Your task to perform on an android device: What is the news today? Image 0: 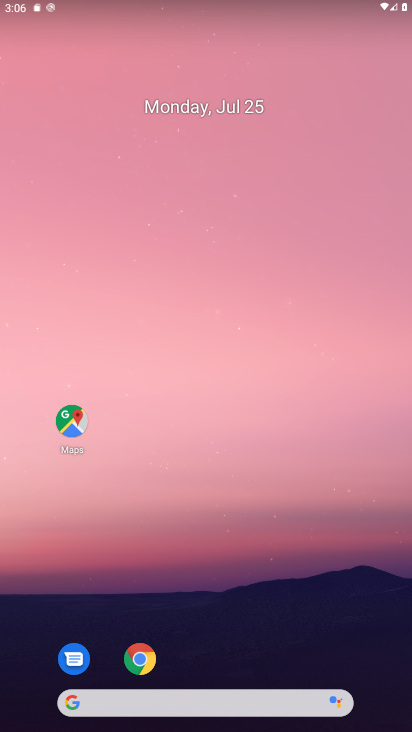
Step 0: click (236, 95)
Your task to perform on an android device: What is the news today? Image 1: 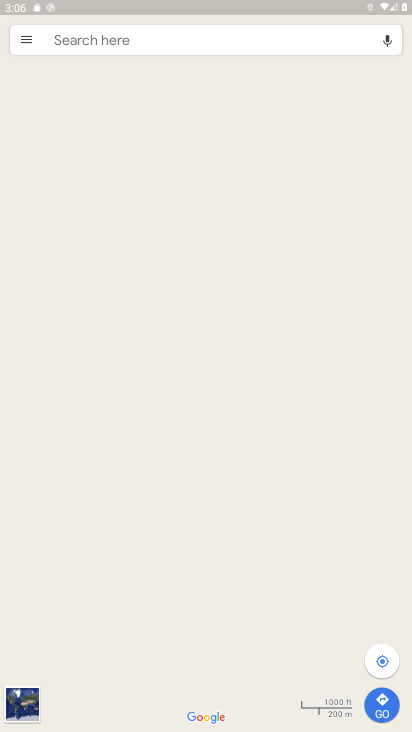
Step 1: press home button
Your task to perform on an android device: What is the news today? Image 2: 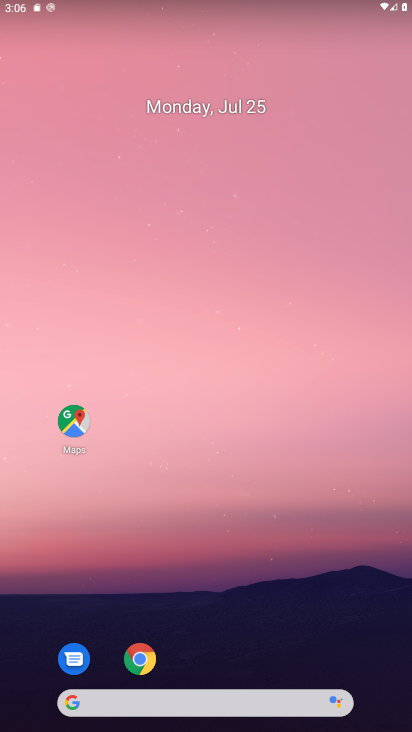
Step 2: click (153, 694)
Your task to perform on an android device: What is the news today? Image 3: 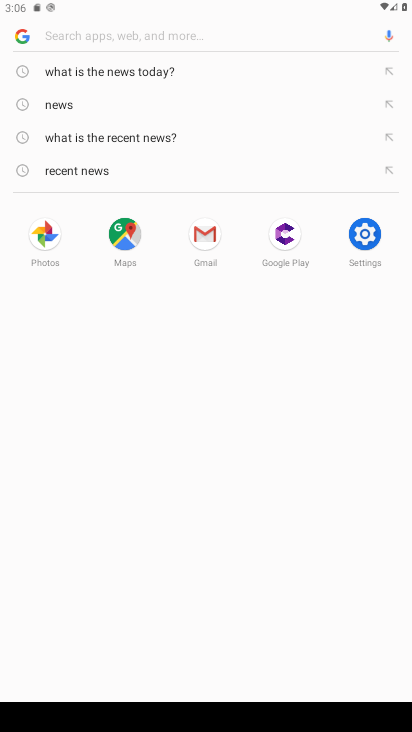
Step 3: click (146, 69)
Your task to perform on an android device: What is the news today? Image 4: 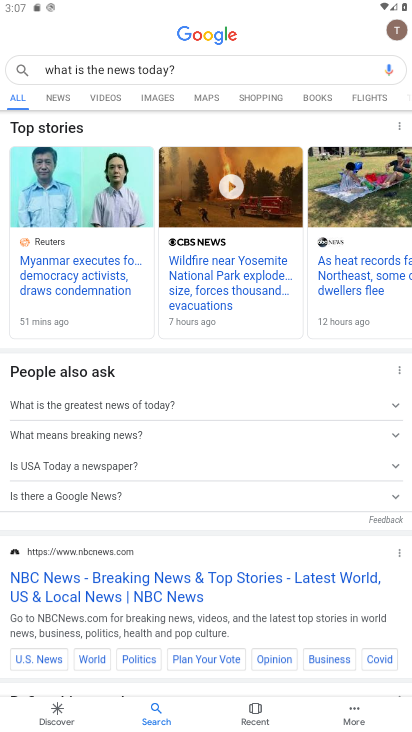
Step 4: task complete